Your task to perform on an android device: Go to battery settings Image 0: 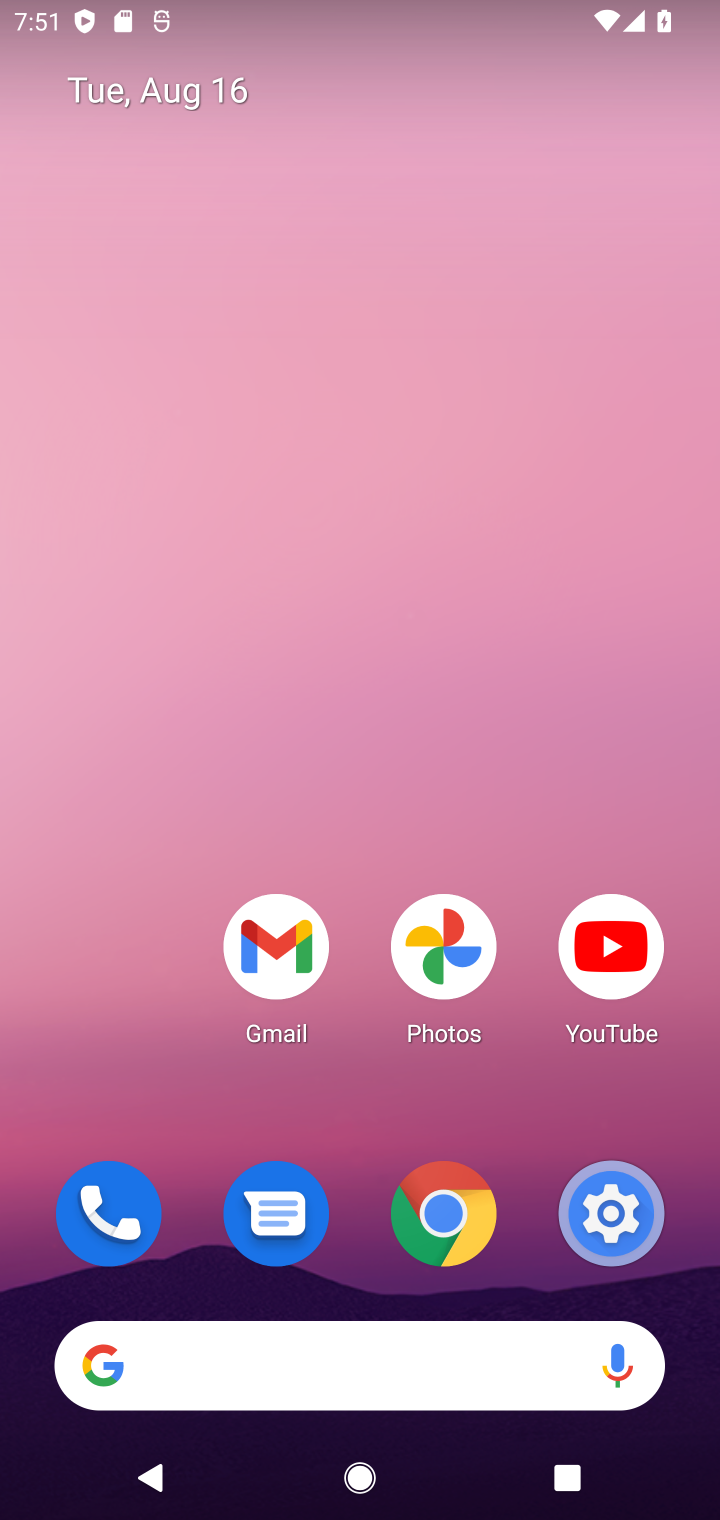
Step 0: click (615, 1259)
Your task to perform on an android device: Go to battery settings Image 1: 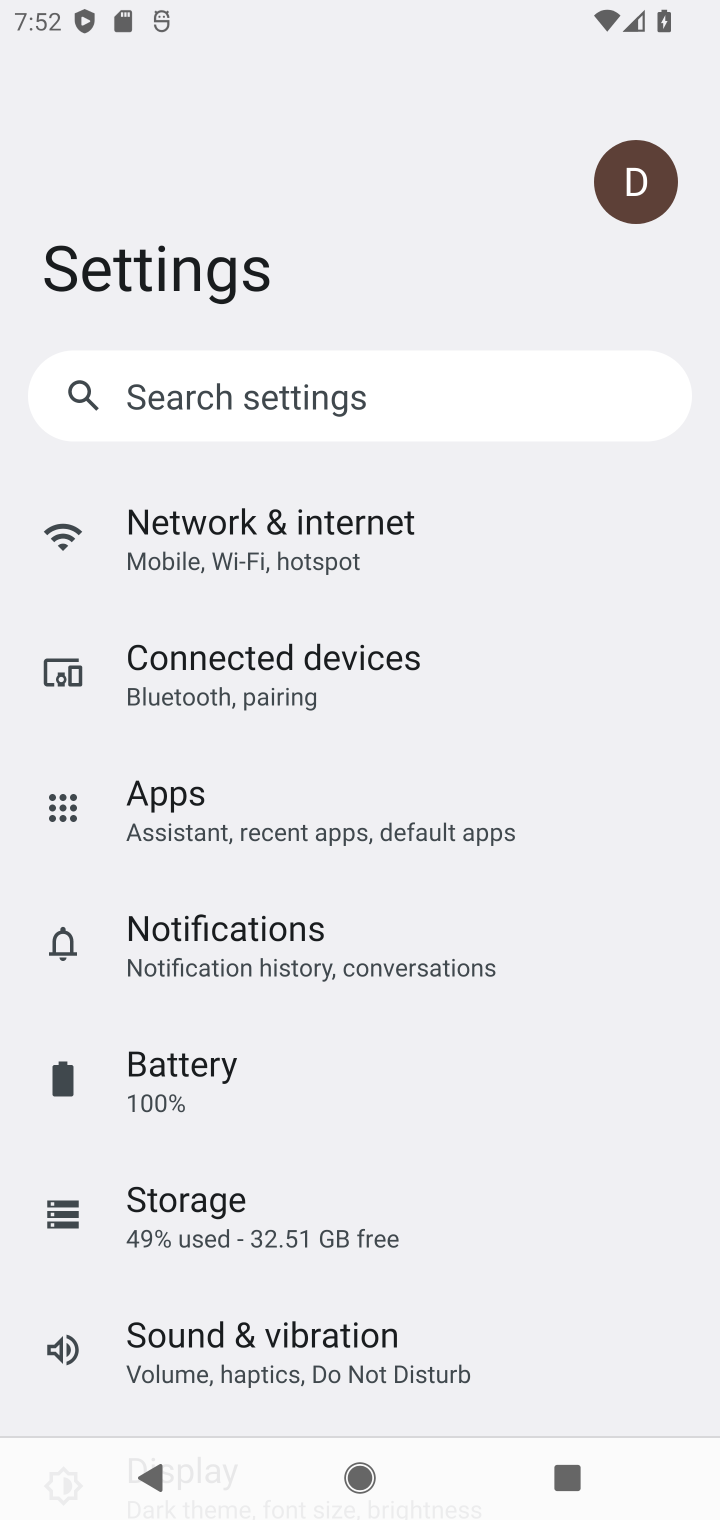
Step 1: click (218, 1096)
Your task to perform on an android device: Go to battery settings Image 2: 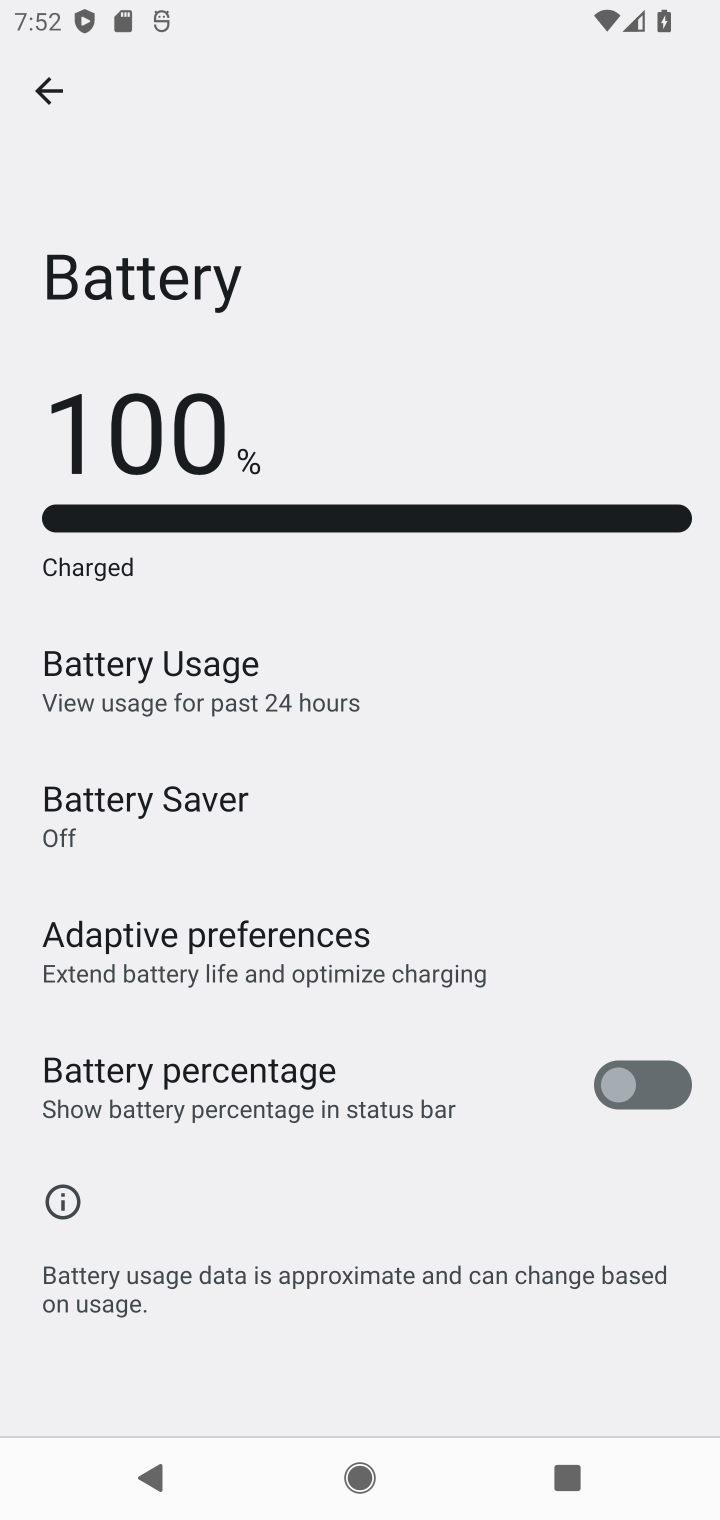
Step 2: task complete